Your task to perform on an android device: Go to eBay Image 0: 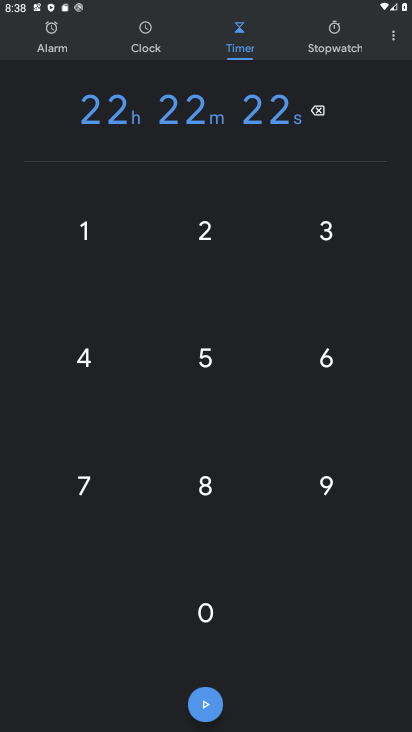
Step 0: press home button
Your task to perform on an android device: Go to eBay Image 1: 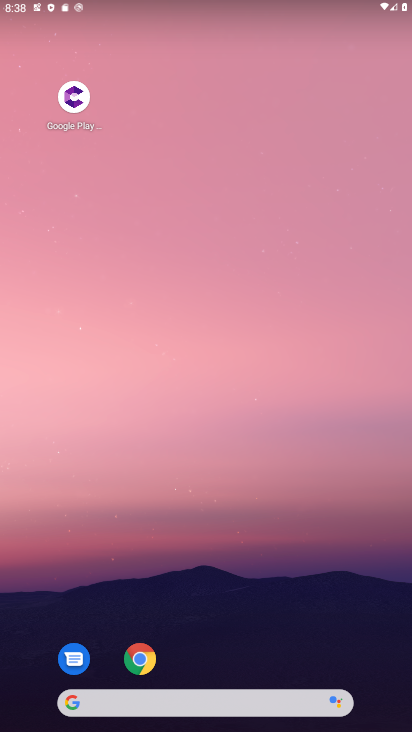
Step 1: click (139, 661)
Your task to perform on an android device: Go to eBay Image 2: 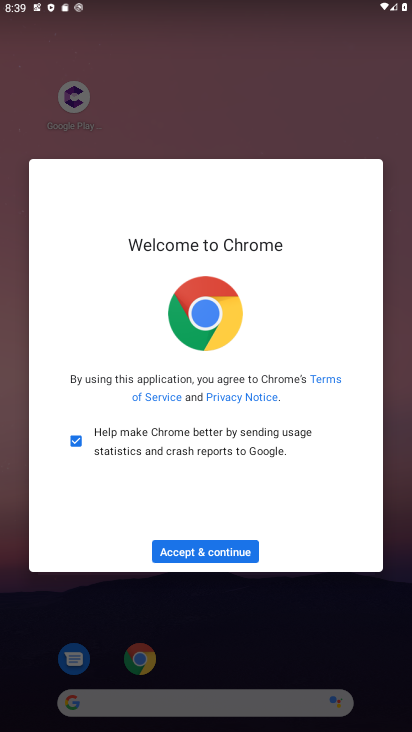
Step 2: click (209, 551)
Your task to perform on an android device: Go to eBay Image 3: 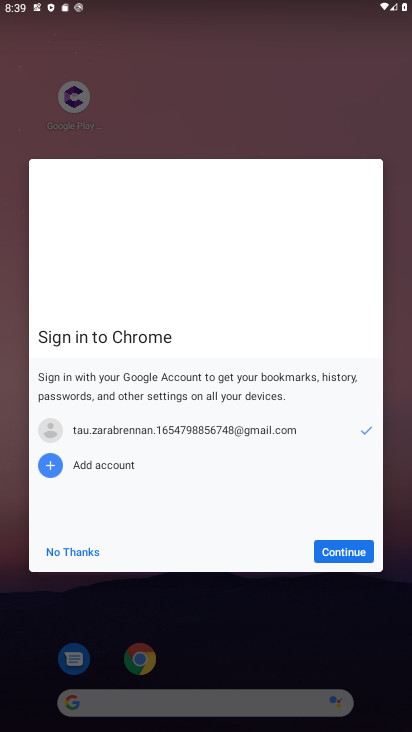
Step 3: click (332, 549)
Your task to perform on an android device: Go to eBay Image 4: 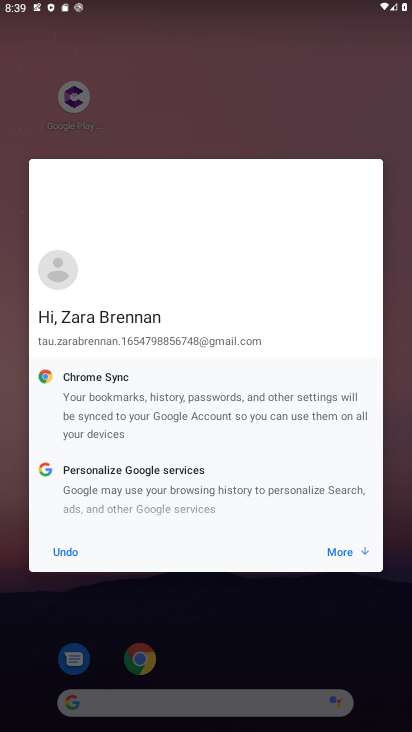
Step 4: click (363, 557)
Your task to perform on an android device: Go to eBay Image 5: 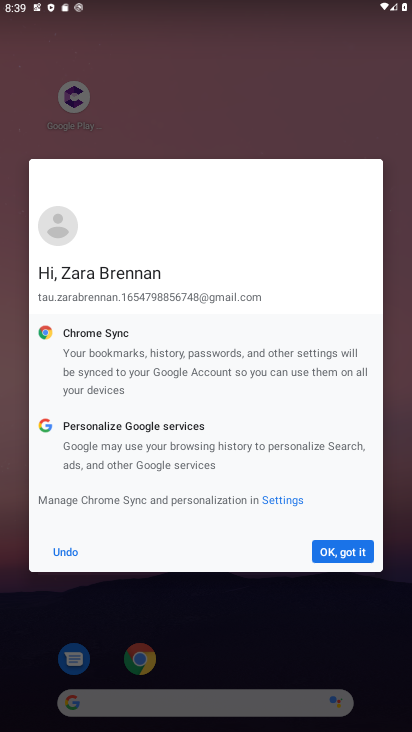
Step 5: click (349, 555)
Your task to perform on an android device: Go to eBay Image 6: 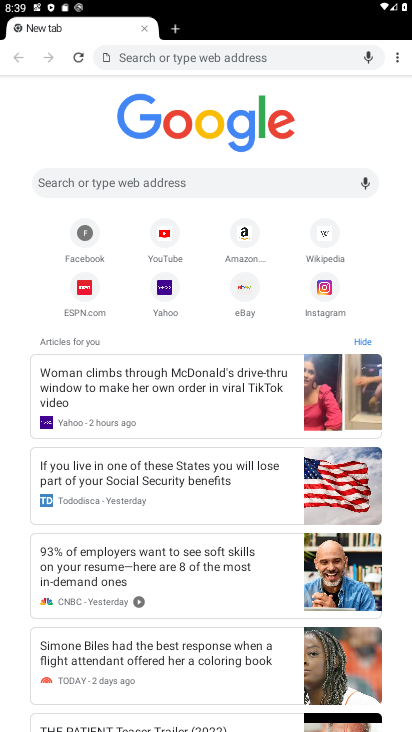
Step 6: click (244, 284)
Your task to perform on an android device: Go to eBay Image 7: 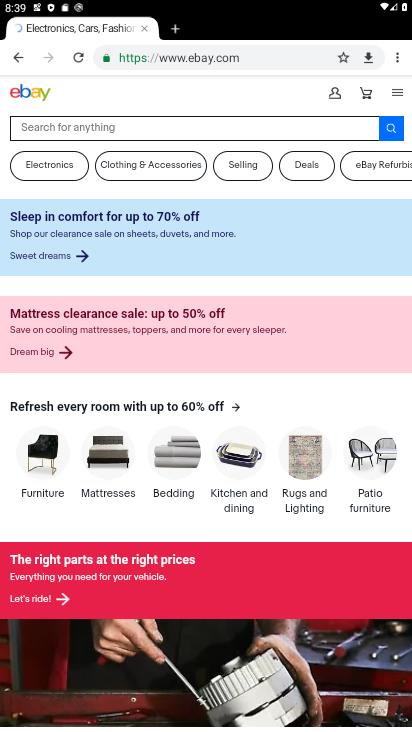
Step 7: task complete